Your task to perform on an android device: Open calendar and show me the fourth week of next month Image 0: 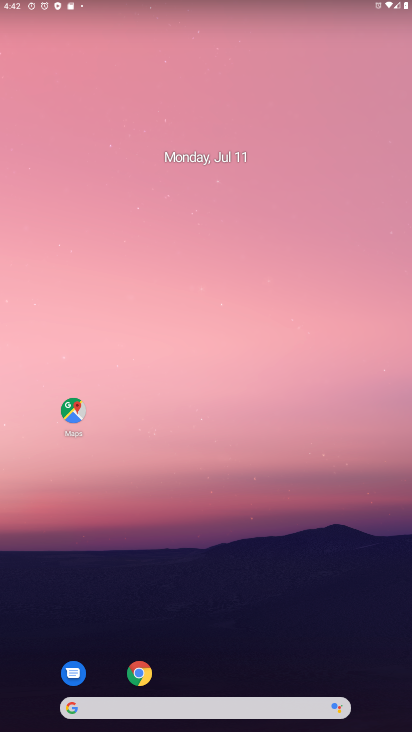
Step 0: drag from (248, 535) to (284, 255)
Your task to perform on an android device: Open calendar and show me the fourth week of next month Image 1: 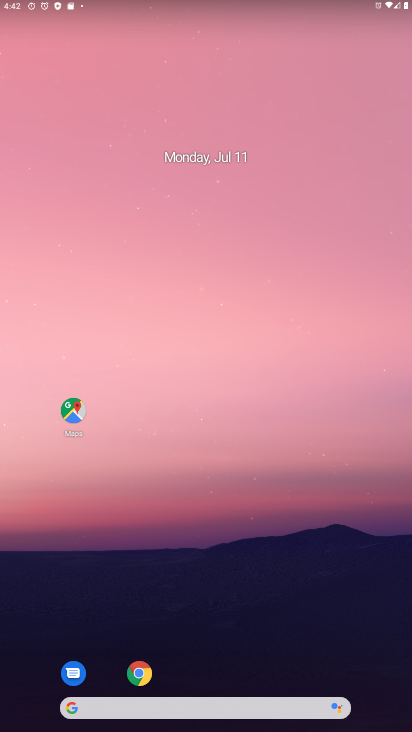
Step 1: drag from (232, 624) to (304, 129)
Your task to perform on an android device: Open calendar and show me the fourth week of next month Image 2: 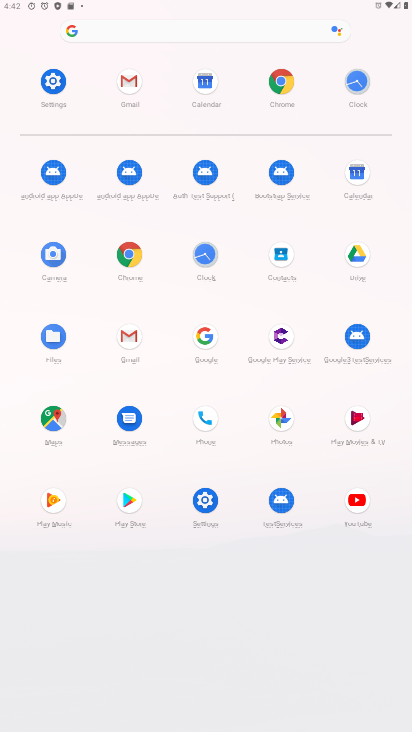
Step 2: click (357, 165)
Your task to perform on an android device: Open calendar and show me the fourth week of next month Image 3: 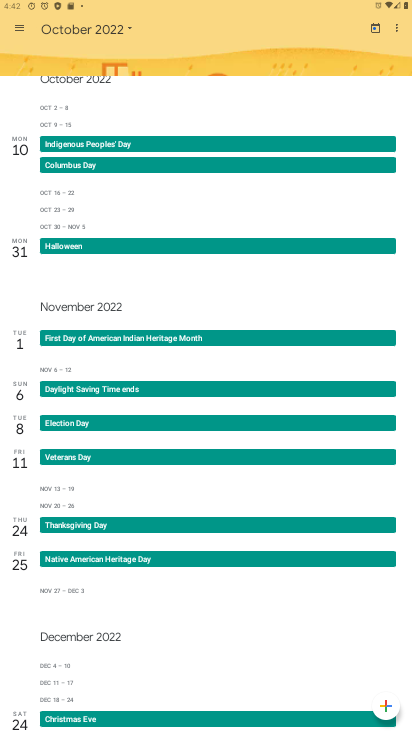
Step 3: click (105, 27)
Your task to perform on an android device: Open calendar and show me the fourth week of next month Image 4: 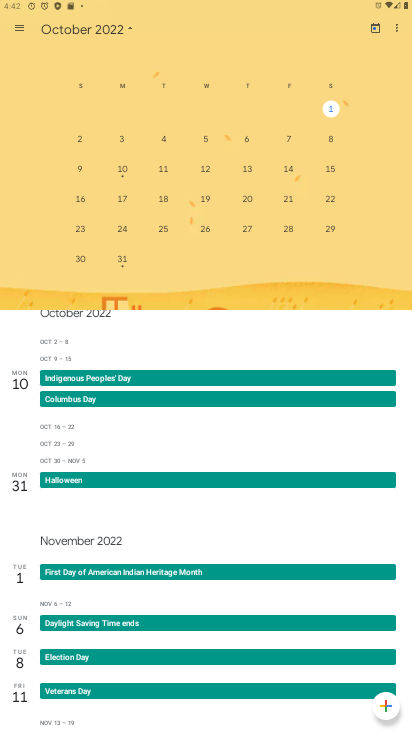
Step 4: drag from (21, 155) to (377, 189)
Your task to perform on an android device: Open calendar and show me the fourth week of next month Image 5: 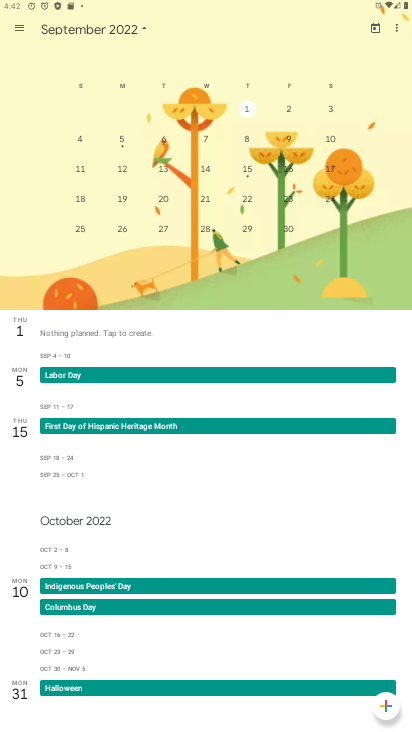
Step 5: drag from (50, 162) to (410, 182)
Your task to perform on an android device: Open calendar and show me the fourth week of next month Image 6: 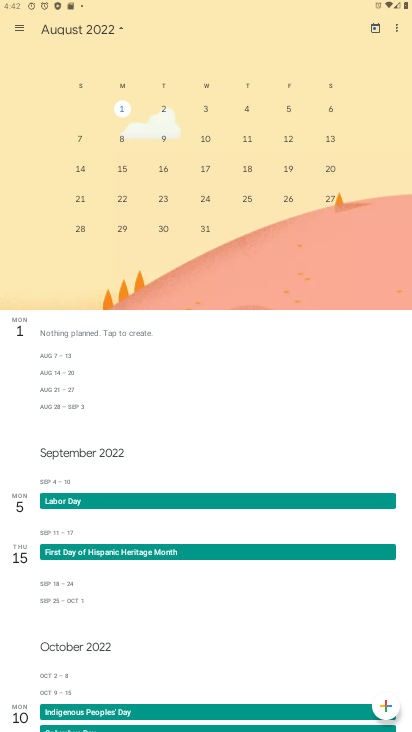
Step 6: drag from (46, 156) to (395, 185)
Your task to perform on an android device: Open calendar and show me the fourth week of next month Image 7: 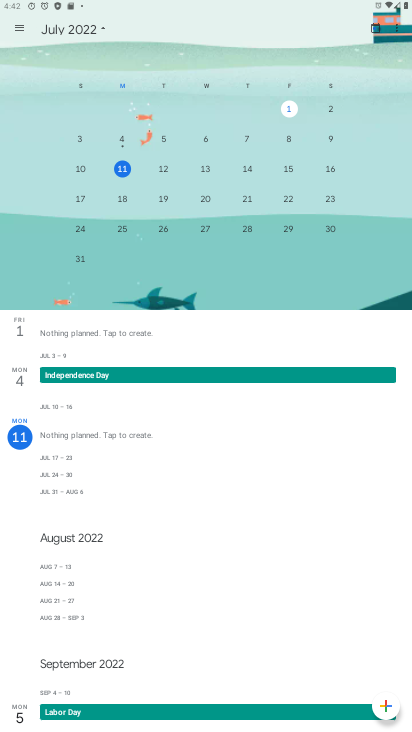
Step 7: drag from (300, 161) to (31, 138)
Your task to perform on an android device: Open calendar and show me the fourth week of next month Image 8: 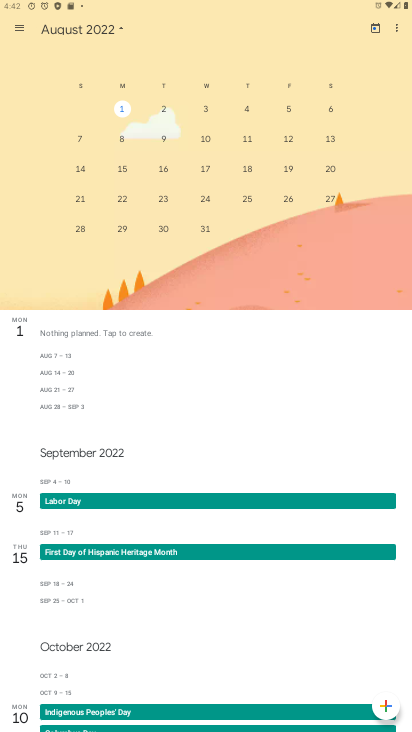
Step 8: click (121, 229)
Your task to perform on an android device: Open calendar and show me the fourth week of next month Image 9: 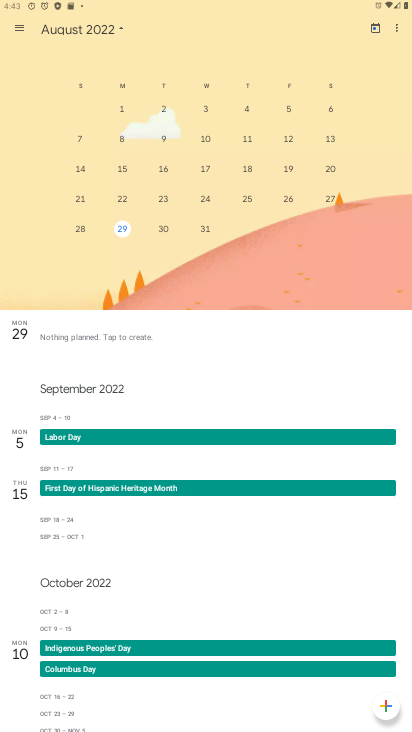
Step 9: task complete